Your task to perform on an android device: Is it going to rain this weekend? Image 0: 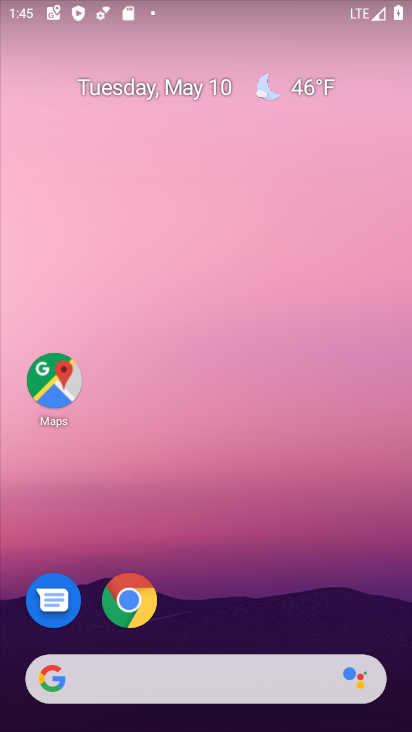
Step 0: click (316, 82)
Your task to perform on an android device: Is it going to rain this weekend? Image 1: 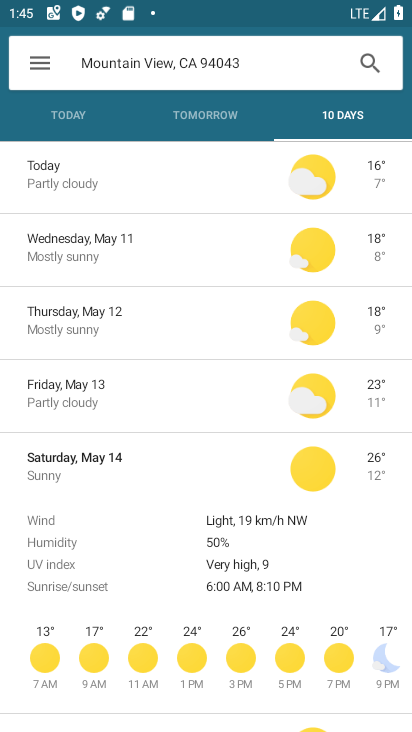
Step 1: task complete